Your task to perform on an android device: Open eBay Image 0: 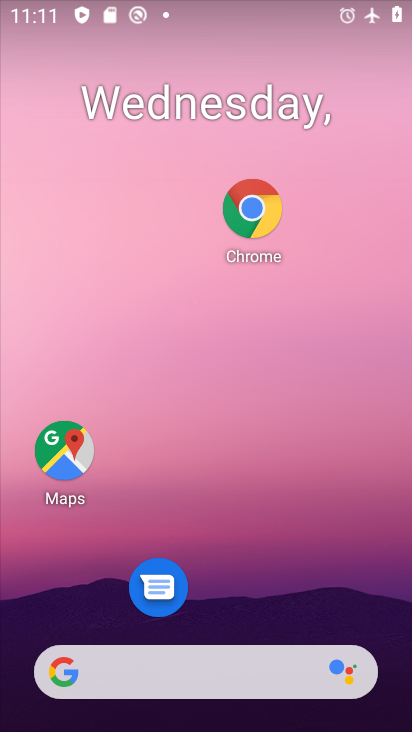
Step 0: click (252, 215)
Your task to perform on an android device: Open eBay Image 1: 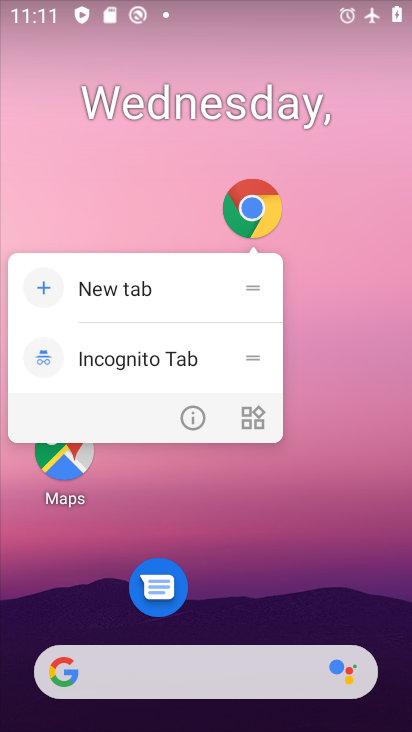
Step 1: click (262, 209)
Your task to perform on an android device: Open eBay Image 2: 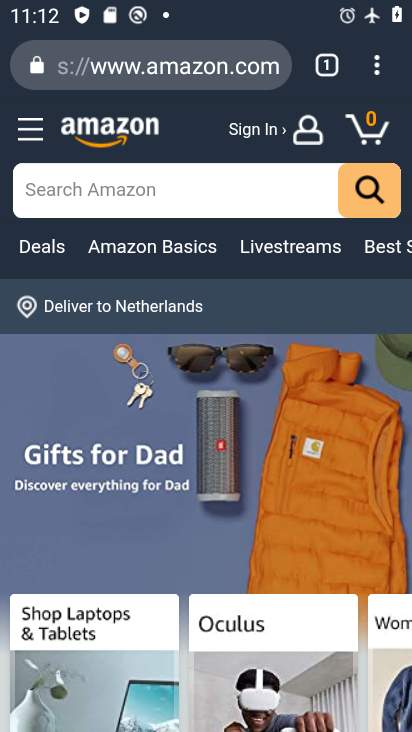
Step 2: press back button
Your task to perform on an android device: Open eBay Image 3: 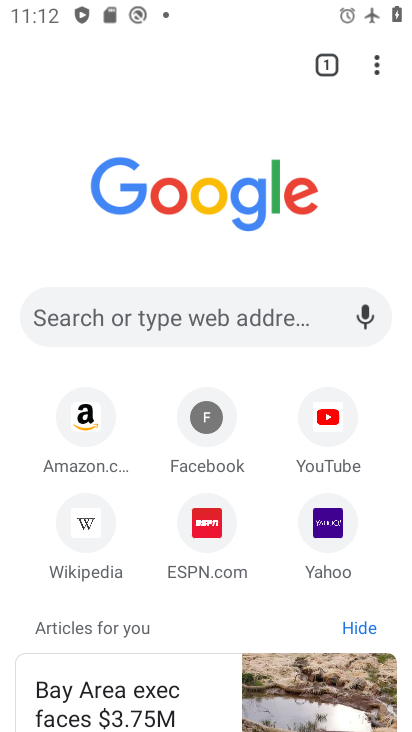
Step 3: click (208, 335)
Your task to perform on an android device: Open eBay Image 4: 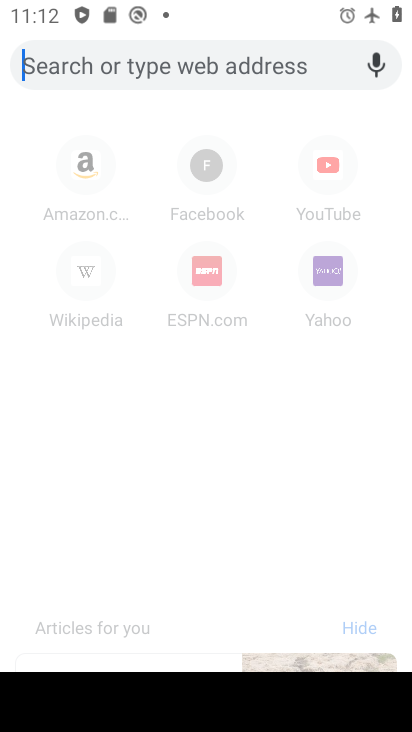
Step 4: click (193, 57)
Your task to perform on an android device: Open eBay Image 5: 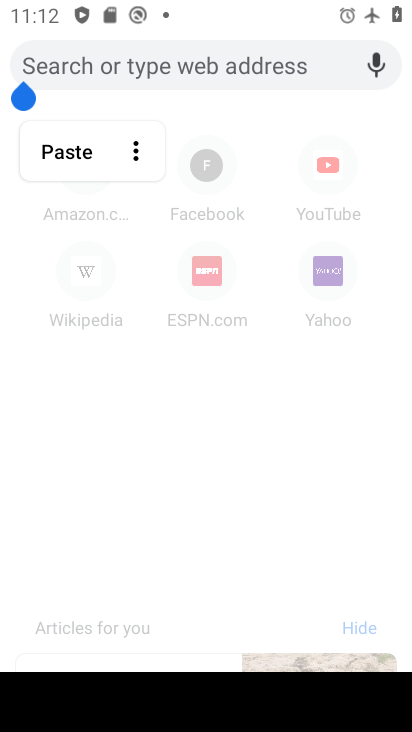
Step 5: click (129, 57)
Your task to perform on an android device: Open eBay Image 6: 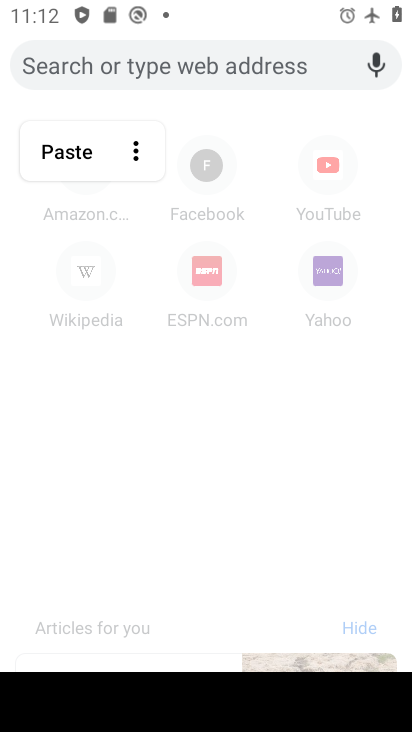
Step 6: type "www.ebay.com"
Your task to perform on an android device: Open eBay Image 7: 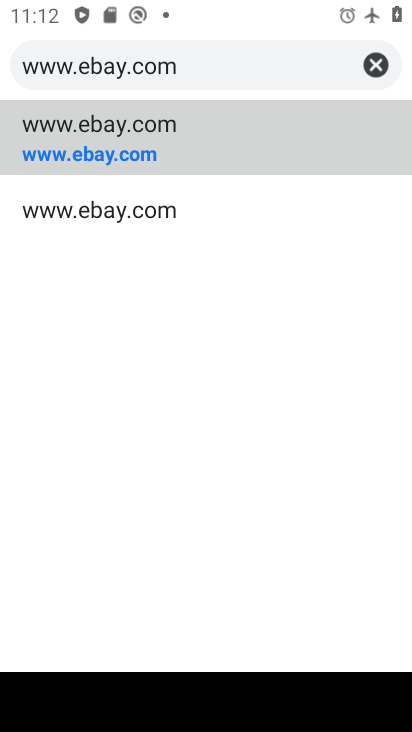
Step 7: click (66, 153)
Your task to perform on an android device: Open eBay Image 8: 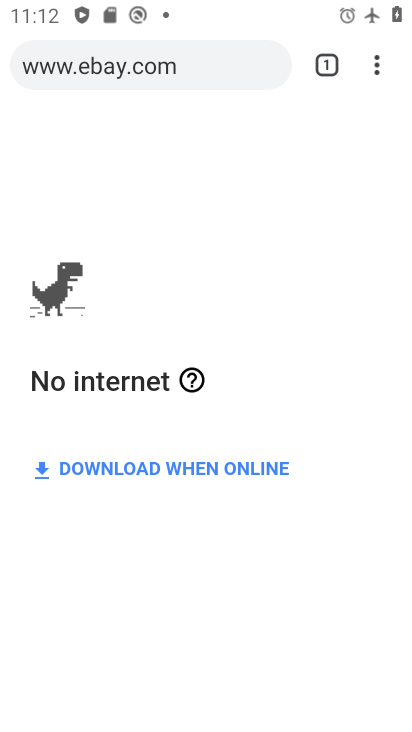
Step 8: task complete